Your task to perform on an android device: Open Yahoo.com Image 0: 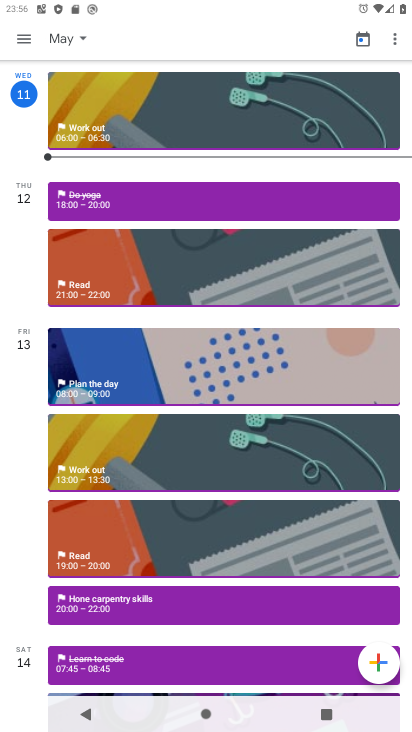
Step 0: press back button
Your task to perform on an android device: Open Yahoo.com Image 1: 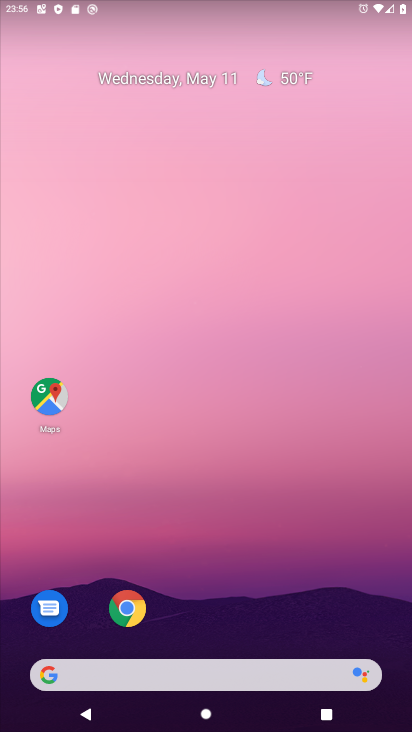
Step 1: click (128, 608)
Your task to perform on an android device: Open Yahoo.com Image 2: 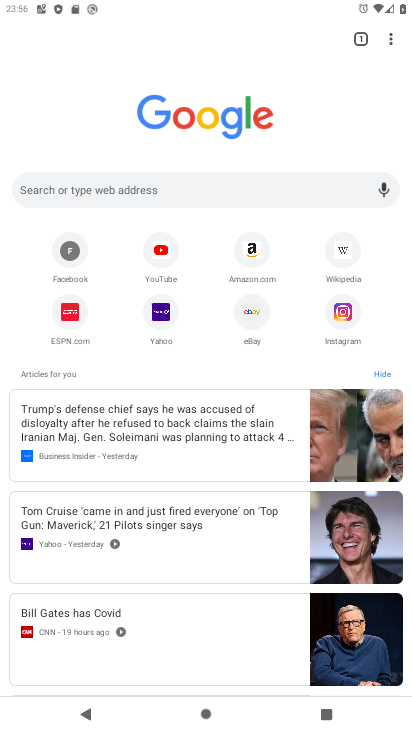
Step 2: click (229, 196)
Your task to perform on an android device: Open Yahoo.com Image 3: 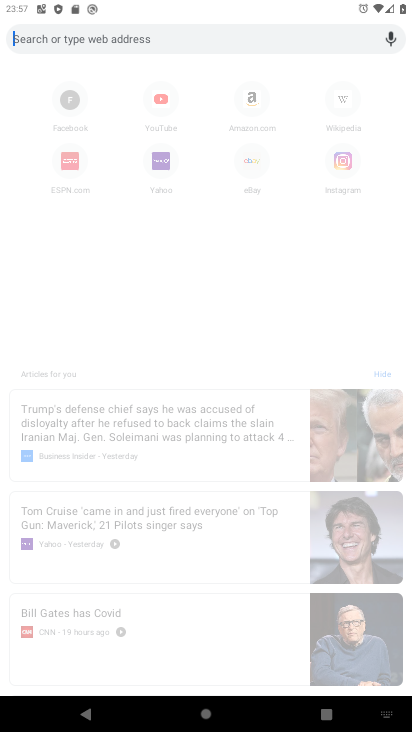
Step 3: type "Yahoo.com"
Your task to perform on an android device: Open Yahoo.com Image 4: 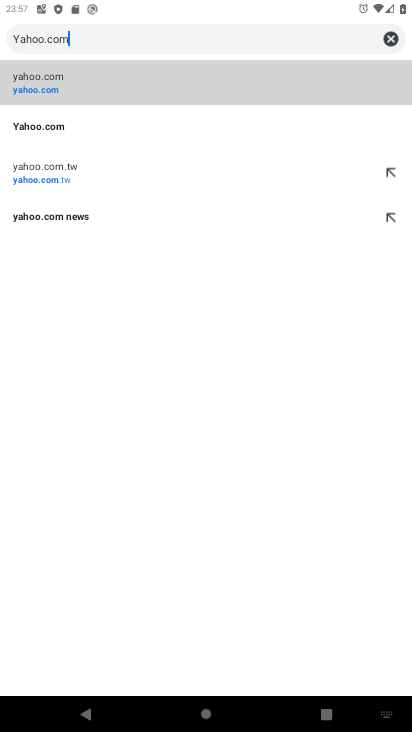
Step 4: type ""
Your task to perform on an android device: Open Yahoo.com Image 5: 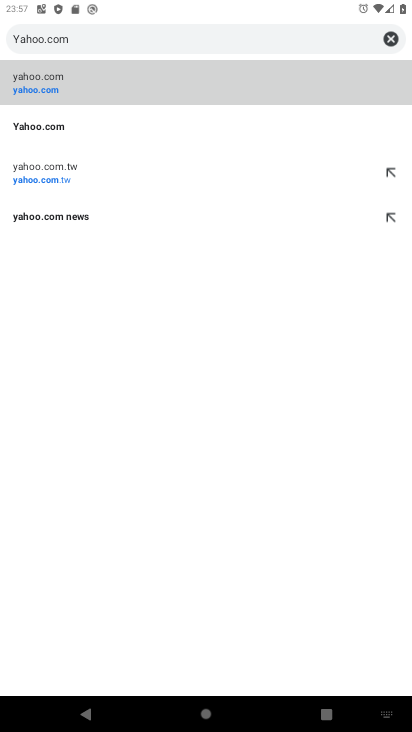
Step 5: click (66, 130)
Your task to perform on an android device: Open Yahoo.com Image 6: 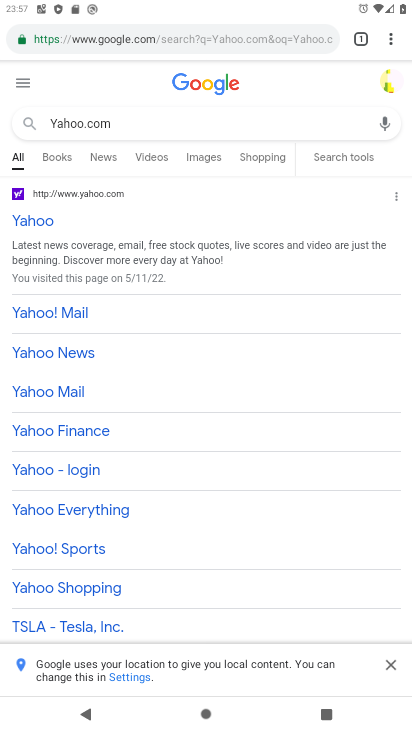
Step 6: click (16, 223)
Your task to perform on an android device: Open Yahoo.com Image 7: 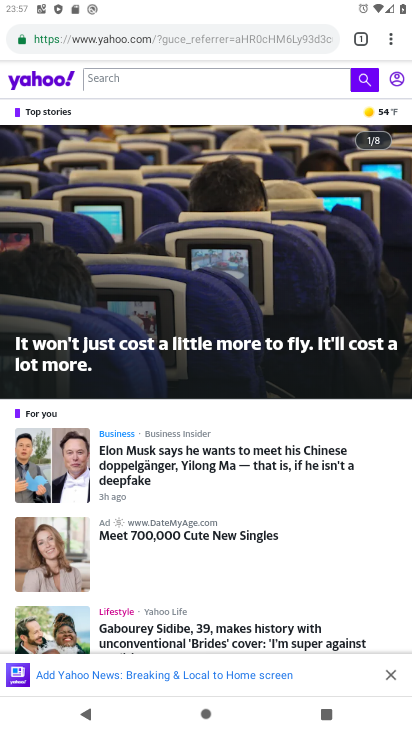
Step 7: task complete